Your task to perform on an android device: Add "logitech g910" to the cart on bestbuy.com Image 0: 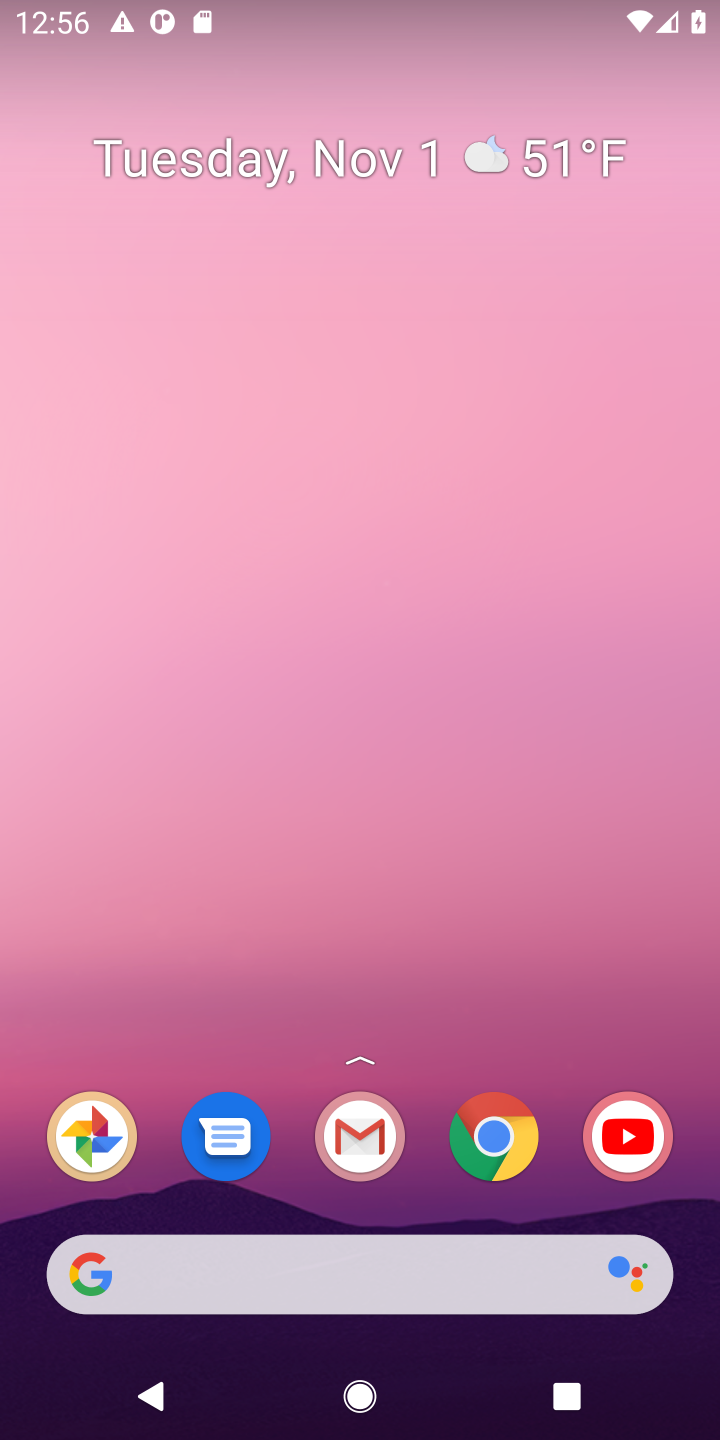
Step 0: press home button
Your task to perform on an android device: Add "logitech g910" to the cart on bestbuy.com Image 1: 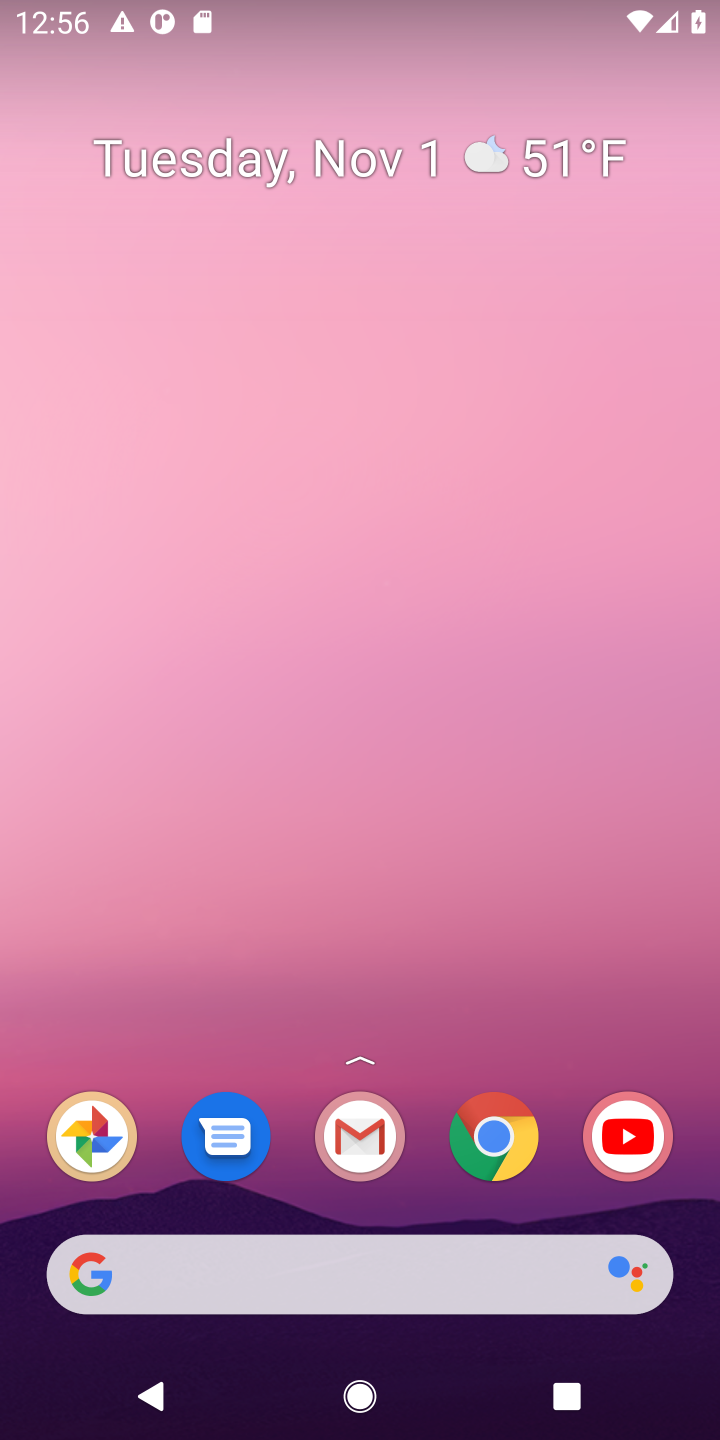
Step 1: click (131, 1281)
Your task to perform on an android device: Add "logitech g910" to the cart on bestbuy.com Image 2: 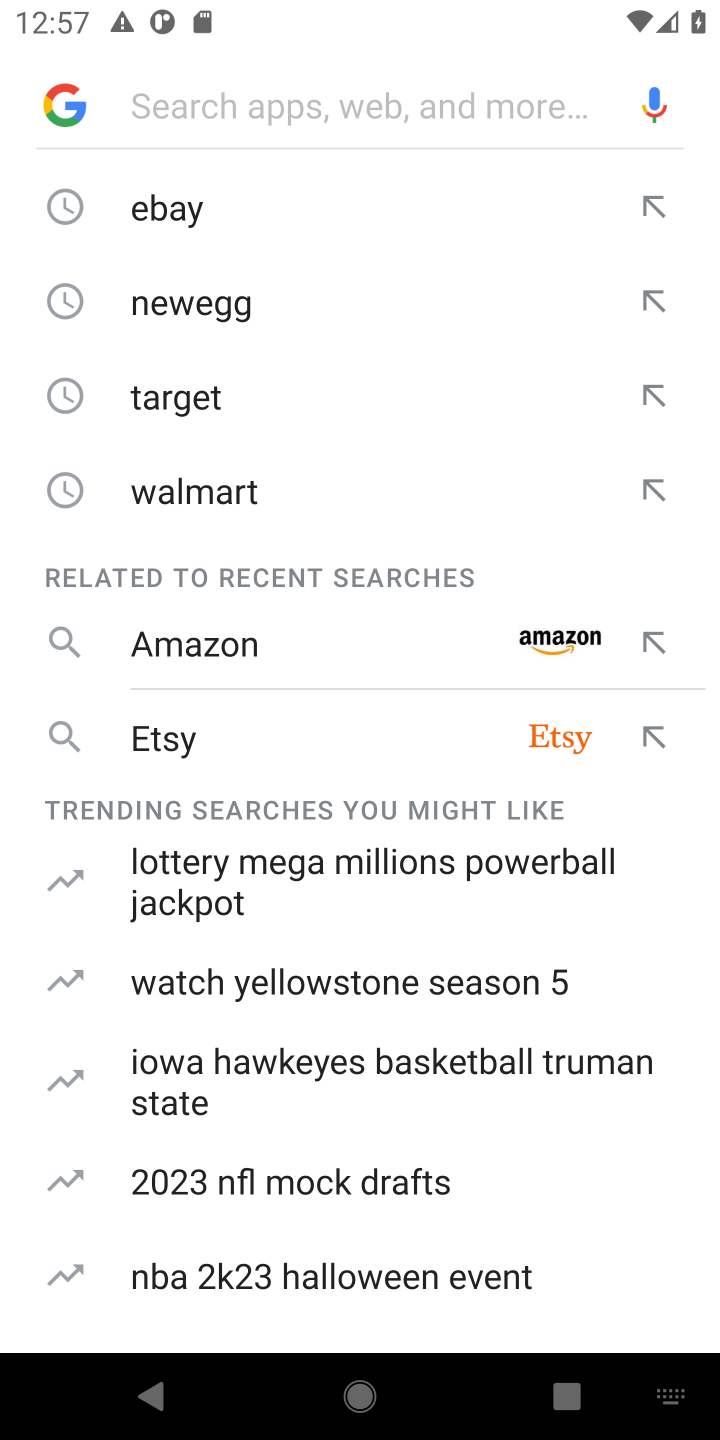
Step 2: type "bestbuy.com"
Your task to perform on an android device: Add "logitech g910" to the cart on bestbuy.com Image 3: 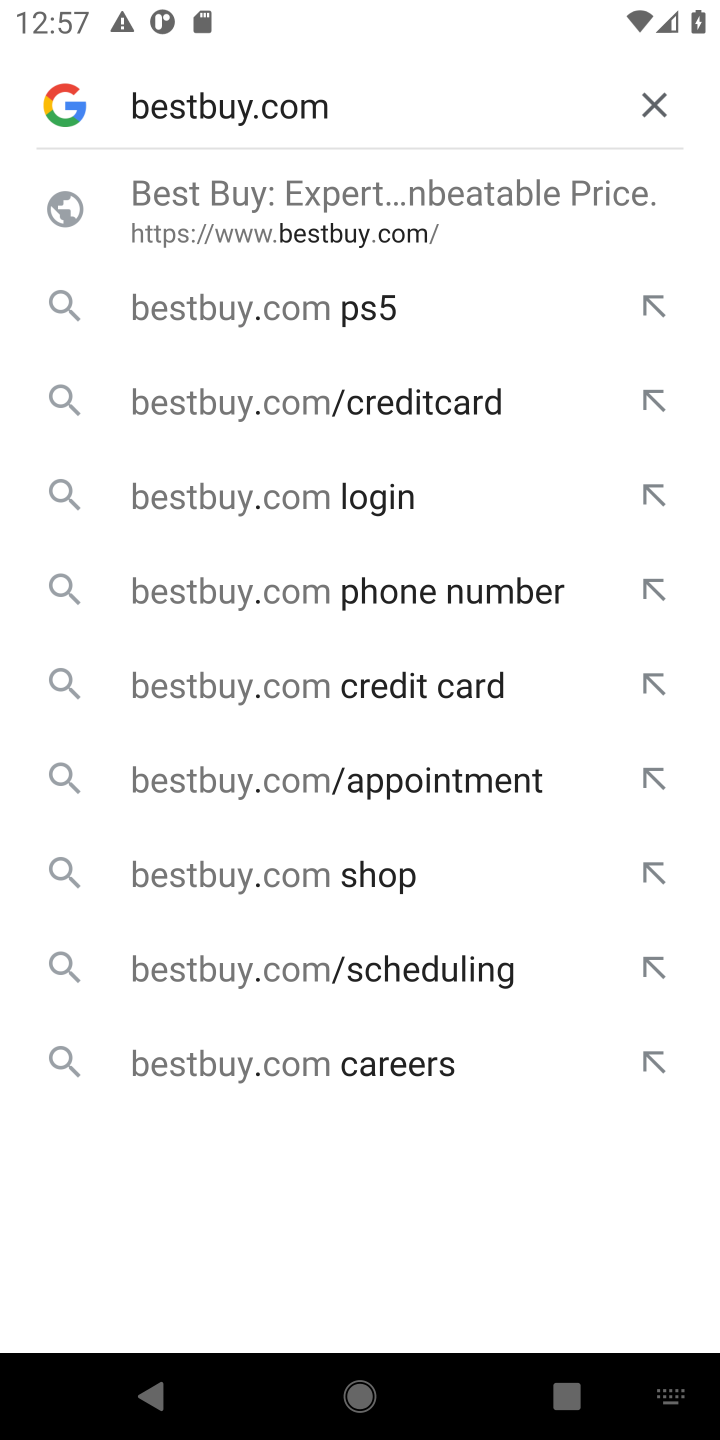
Step 3: press enter
Your task to perform on an android device: Add "logitech g910" to the cart on bestbuy.com Image 4: 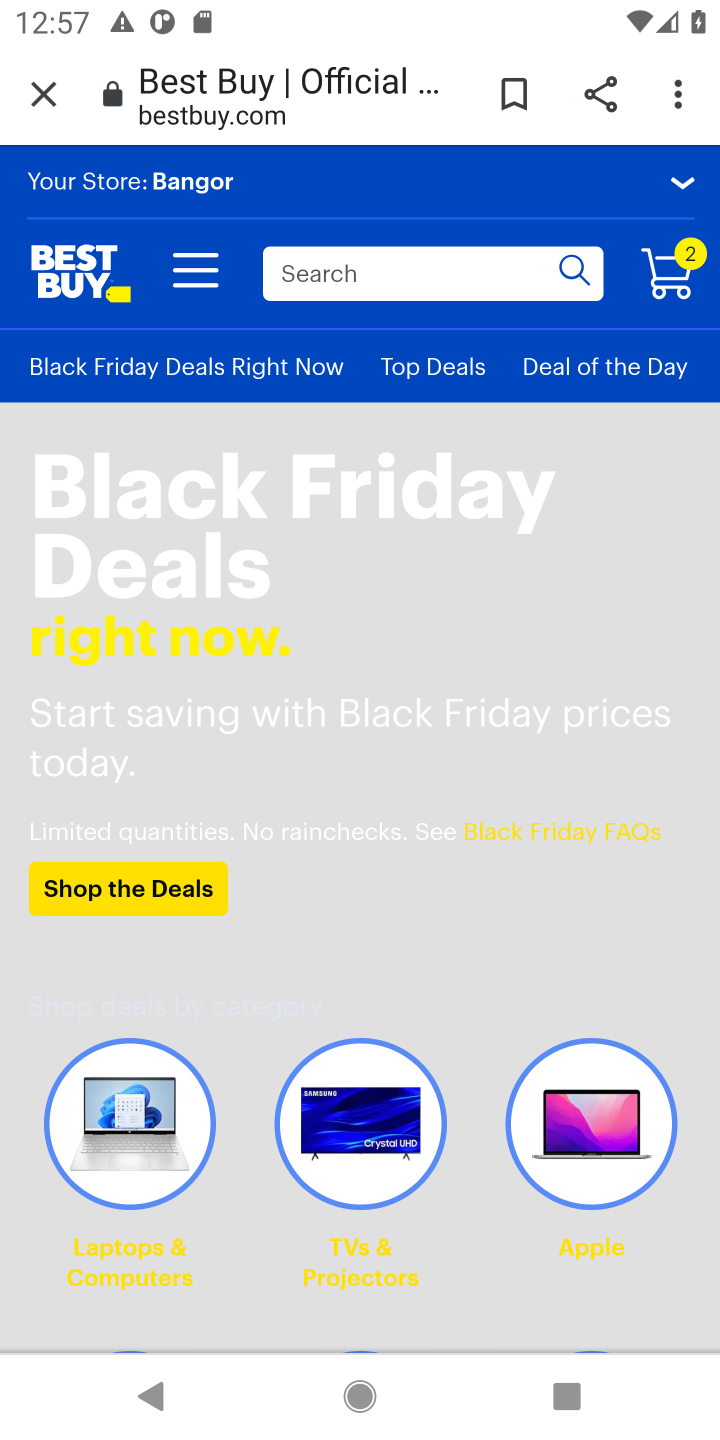
Step 4: click (319, 274)
Your task to perform on an android device: Add "logitech g910" to the cart on bestbuy.com Image 5: 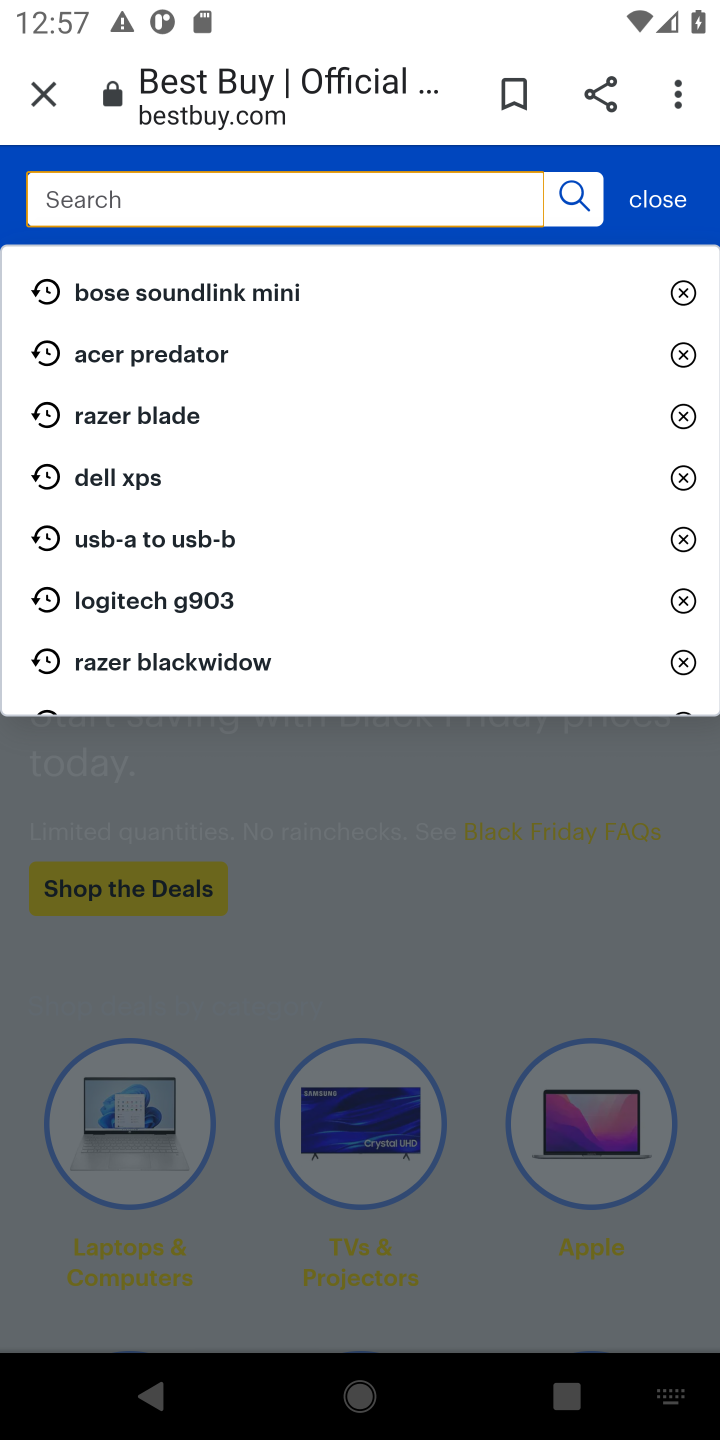
Step 5: type "logitech g910"
Your task to perform on an android device: Add "logitech g910" to the cart on bestbuy.com Image 6: 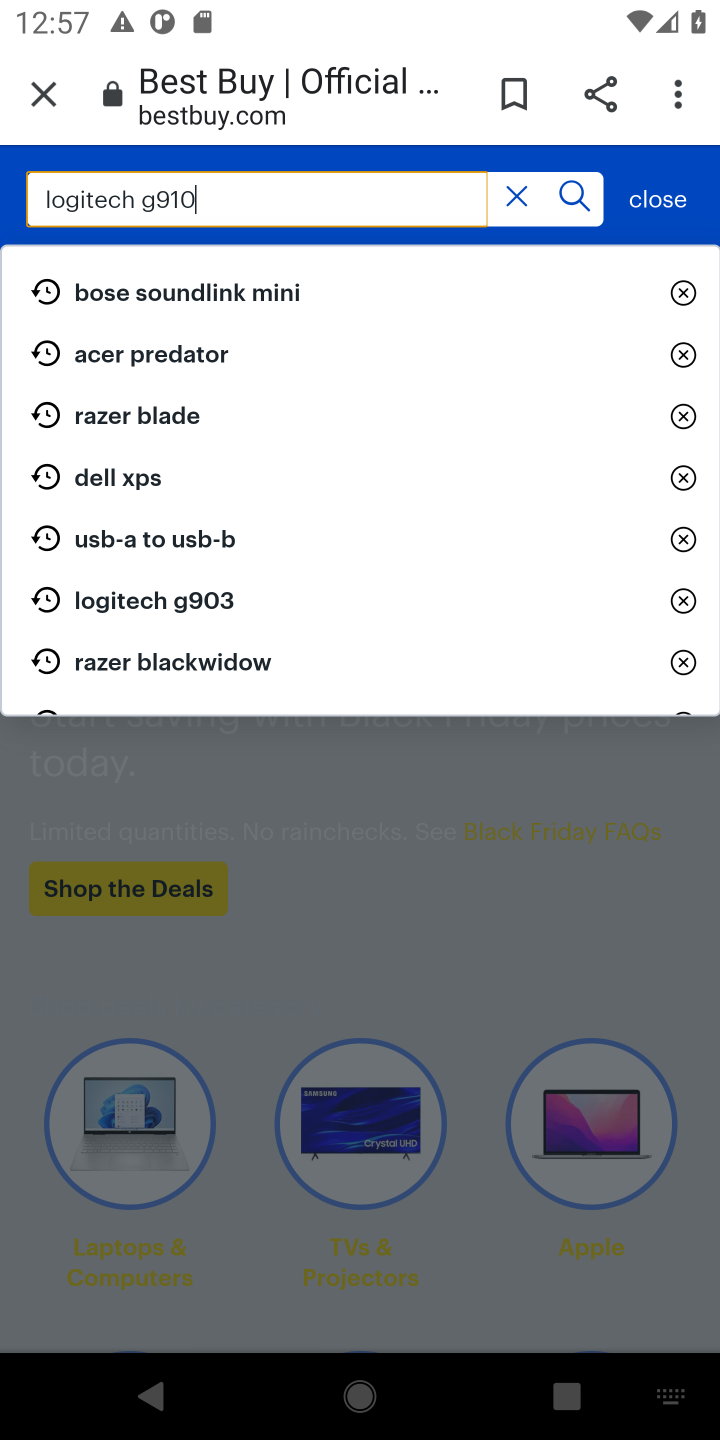
Step 6: press enter
Your task to perform on an android device: Add "logitech g910" to the cart on bestbuy.com Image 7: 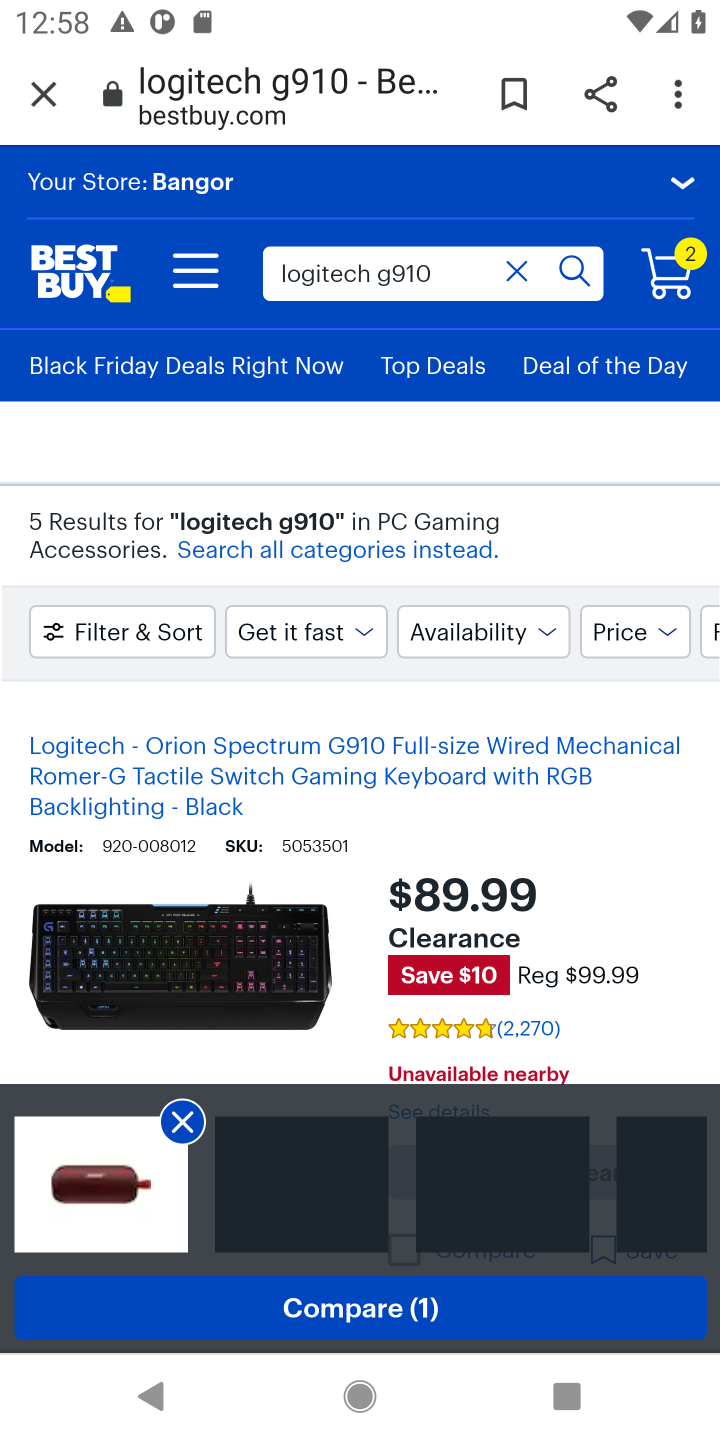
Step 7: drag from (404, 979) to (499, 483)
Your task to perform on an android device: Add "logitech g910" to the cart on bestbuy.com Image 8: 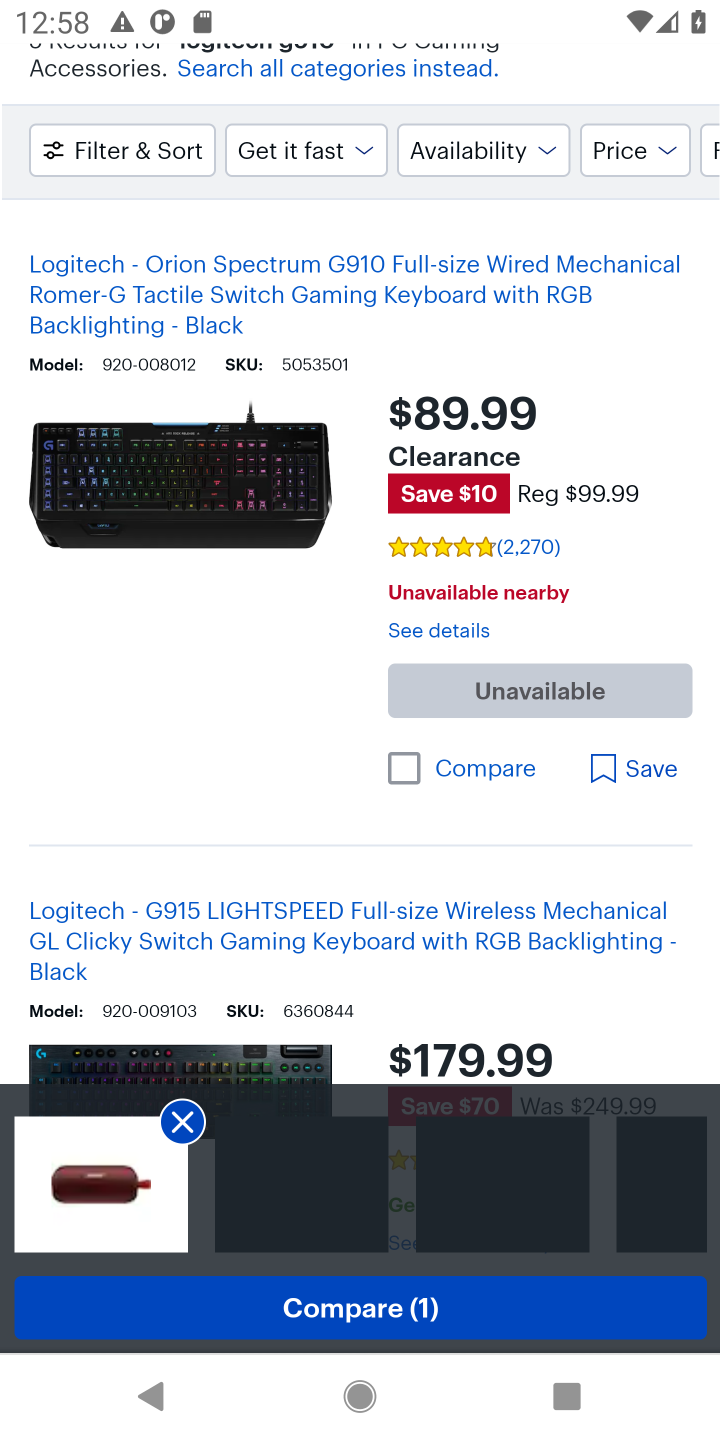
Step 8: click (191, 1127)
Your task to perform on an android device: Add "logitech g910" to the cart on bestbuy.com Image 9: 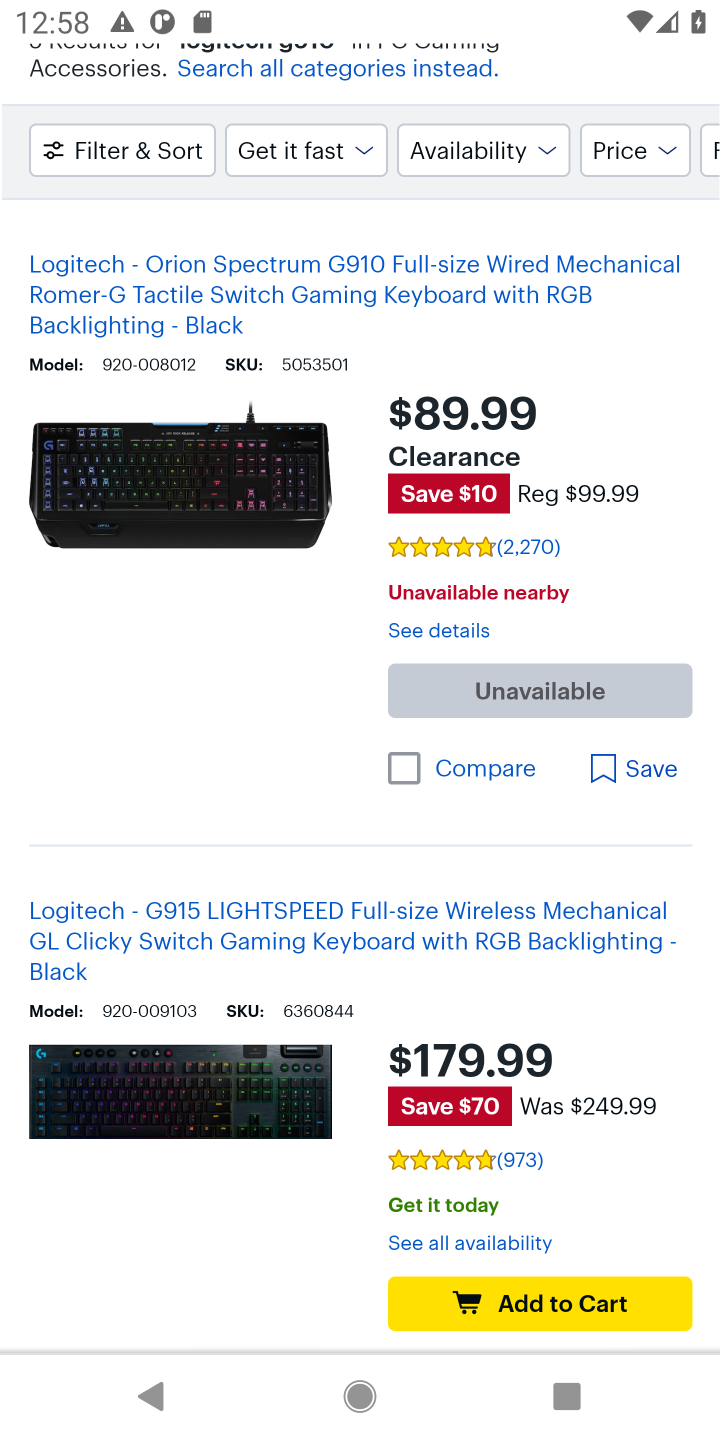
Step 9: task complete